Your task to perform on an android device: empty trash in the gmail app Image 0: 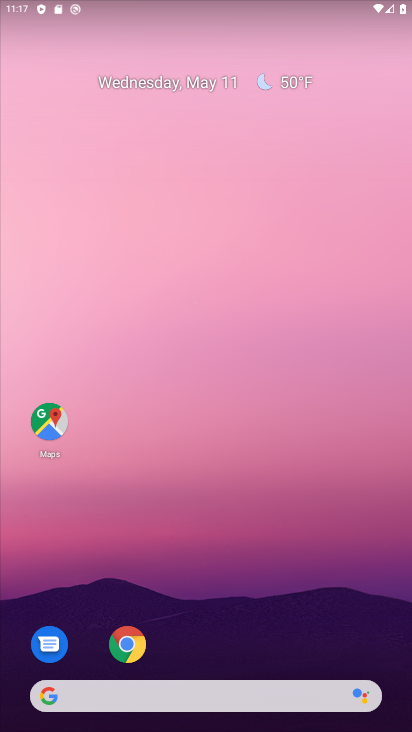
Step 0: drag from (314, 543) to (369, 33)
Your task to perform on an android device: empty trash in the gmail app Image 1: 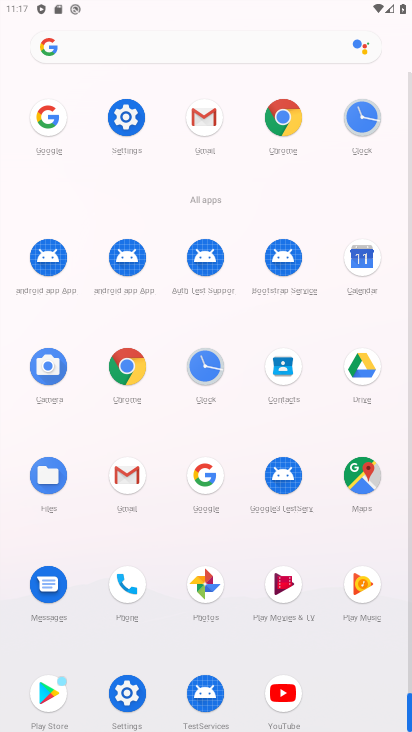
Step 1: click (203, 116)
Your task to perform on an android device: empty trash in the gmail app Image 2: 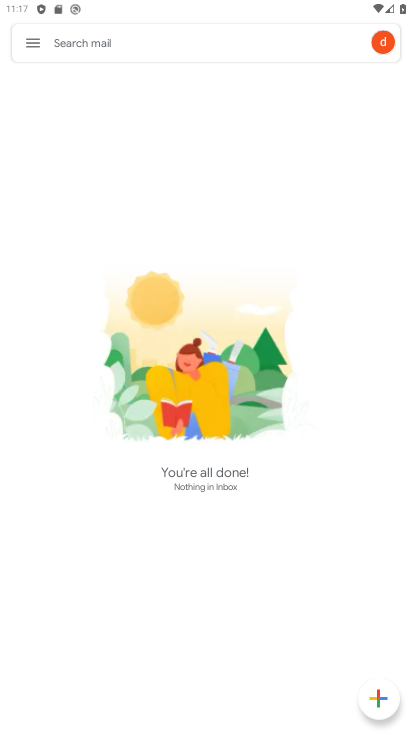
Step 2: click (35, 39)
Your task to perform on an android device: empty trash in the gmail app Image 3: 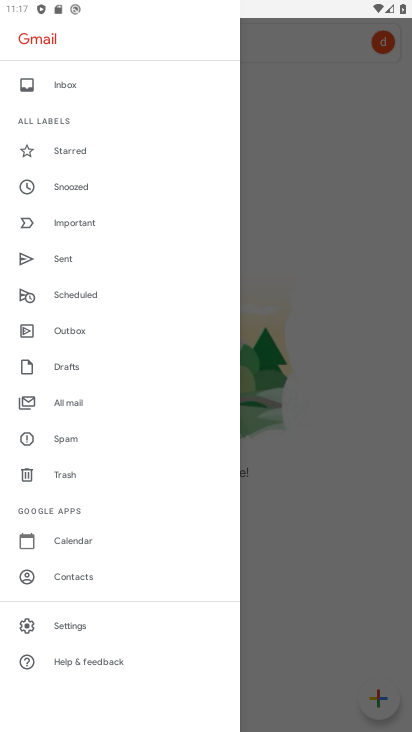
Step 3: click (67, 471)
Your task to perform on an android device: empty trash in the gmail app Image 4: 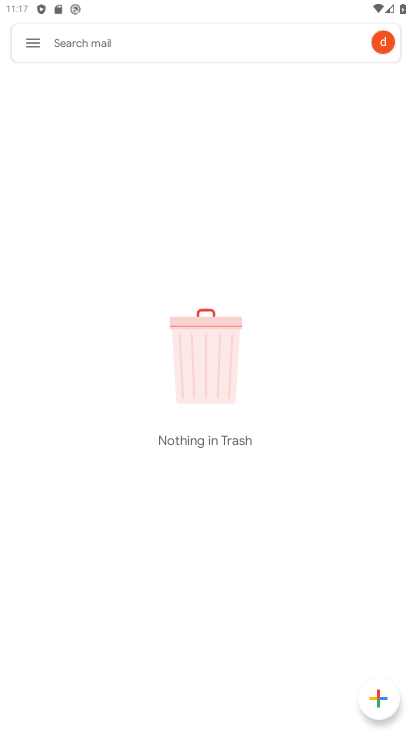
Step 4: task complete